Your task to perform on an android device: Go to Yahoo.com Image 0: 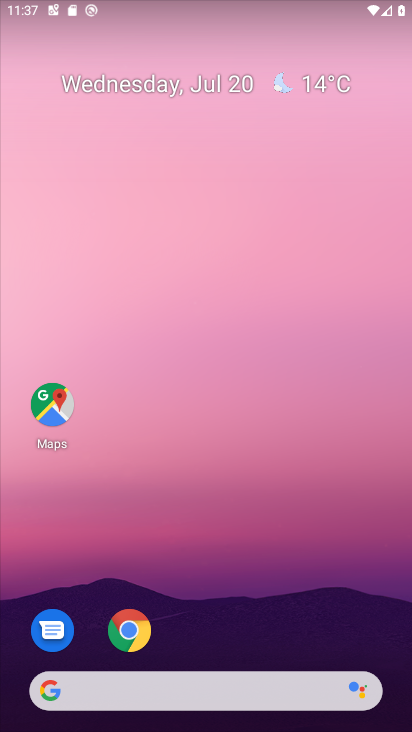
Step 0: click (136, 637)
Your task to perform on an android device: Go to Yahoo.com Image 1: 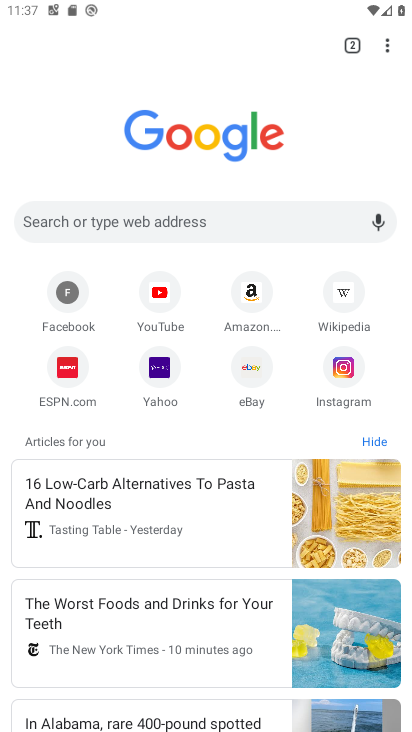
Step 1: click (160, 372)
Your task to perform on an android device: Go to Yahoo.com Image 2: 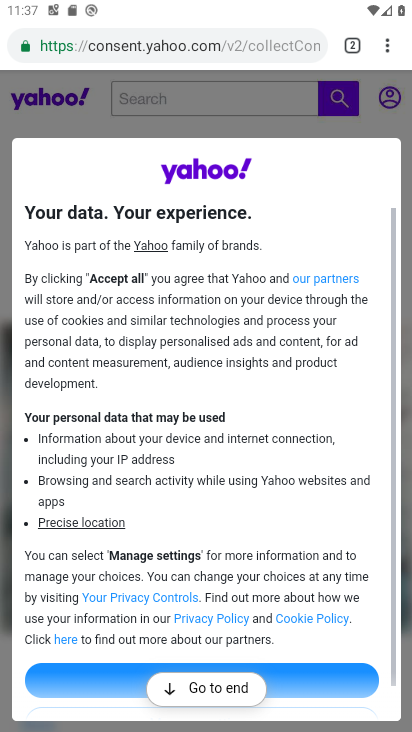
Step 2: click (198, 678)
Your task to perform on an android device: Go to Yahoo.com Image 3: 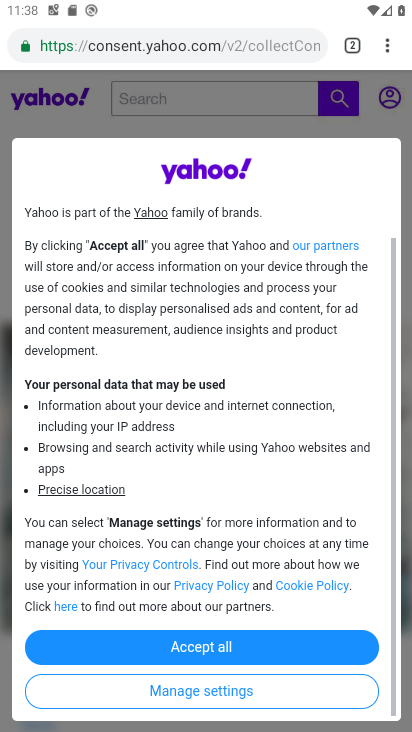
Step 3: click (188, 634)
Your task to perform on an android device: Go to Yahoo.com Image 4: 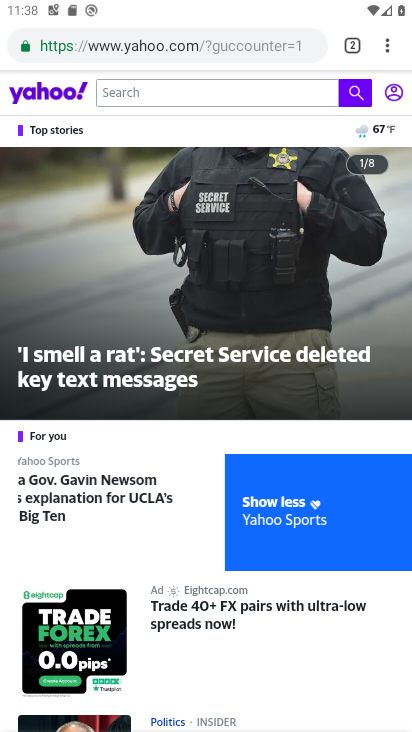
Step 4: task complete